Your task to perform on an android device: Search for the new Nike Air Max 270 on Nike.com Image 0: 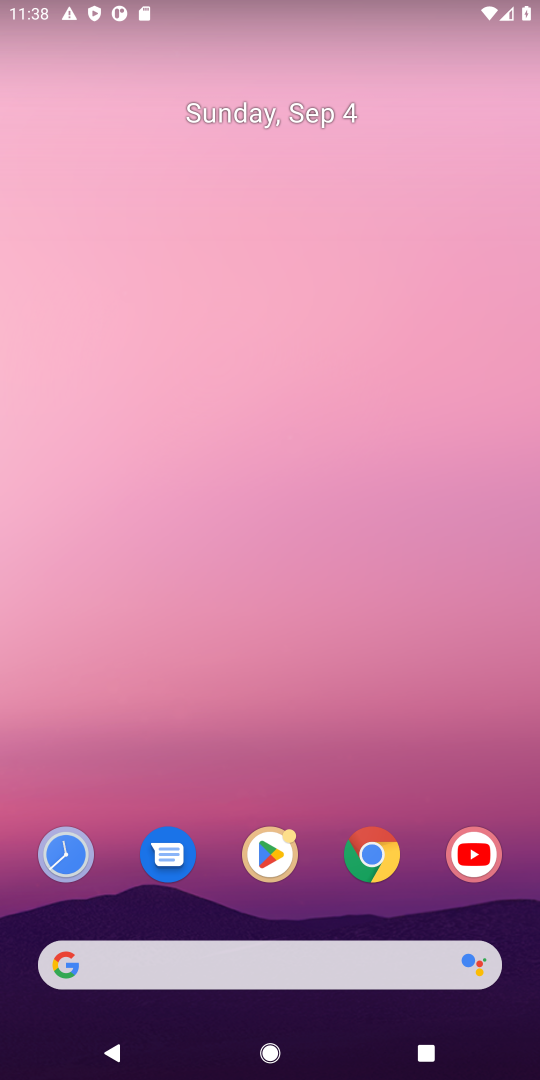
Step 0: press home button
Your task to perform on an android device: Search for the new Nike Air Max 270 on Nike.com Image 1: 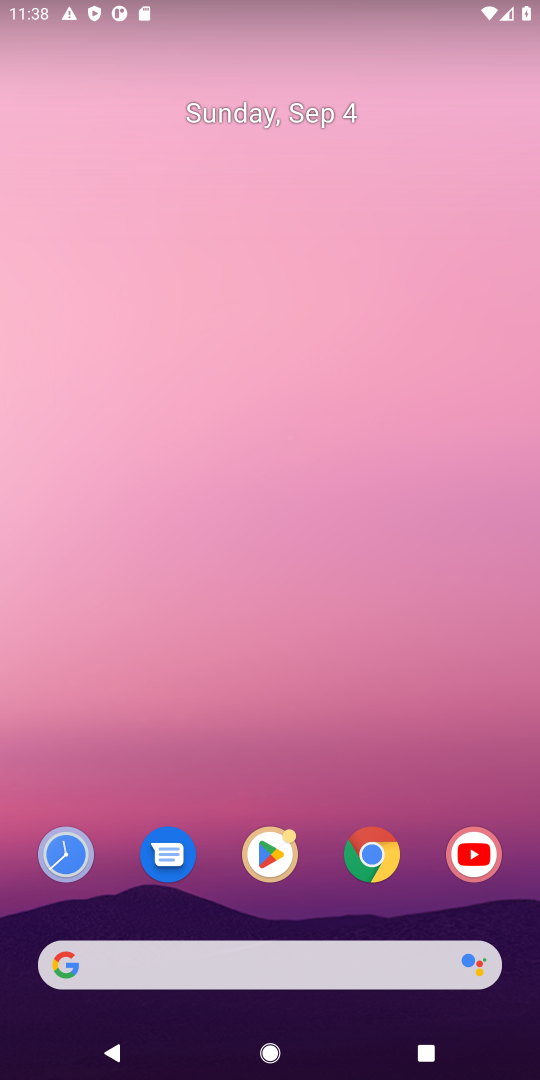
Step 1: click (402, 969)
Your task to perform on an android device: Search for the new Nike Air Max 270 on Nike.com Image 2: 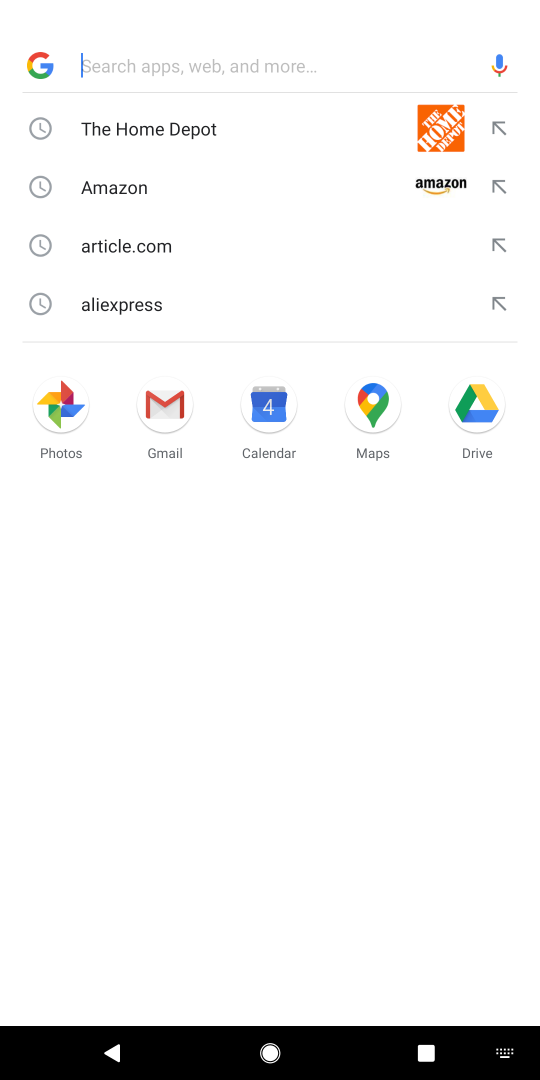
Step 2: press enter
Your task to perform on an android device: Search for the new Nike Air Max 270 on Nike.com Image 3: 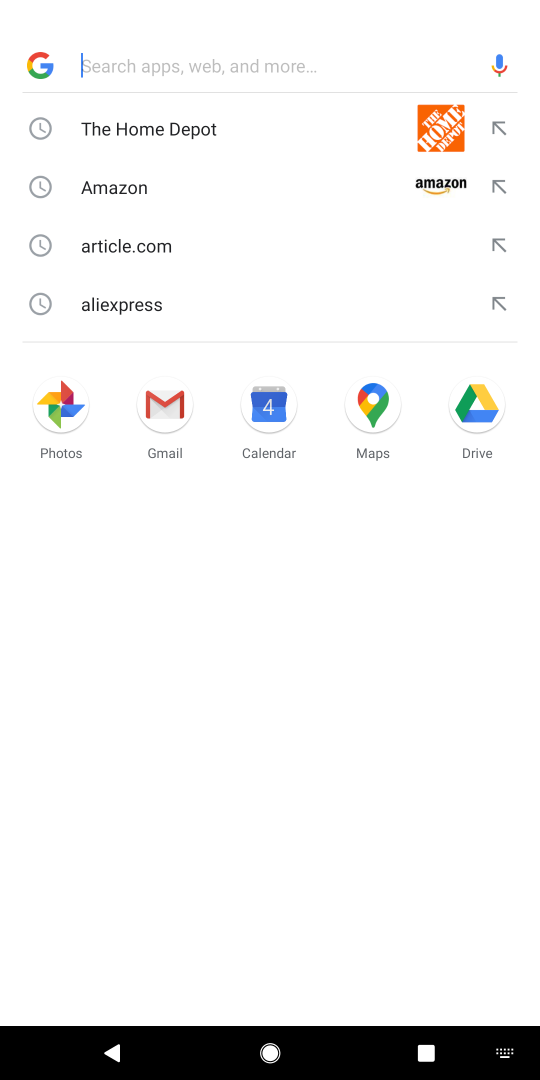
Step 3: type "nike.com"
Your task to perform on an android device: Search for the new Nike Air Max 270 on Nike.com Image 4: 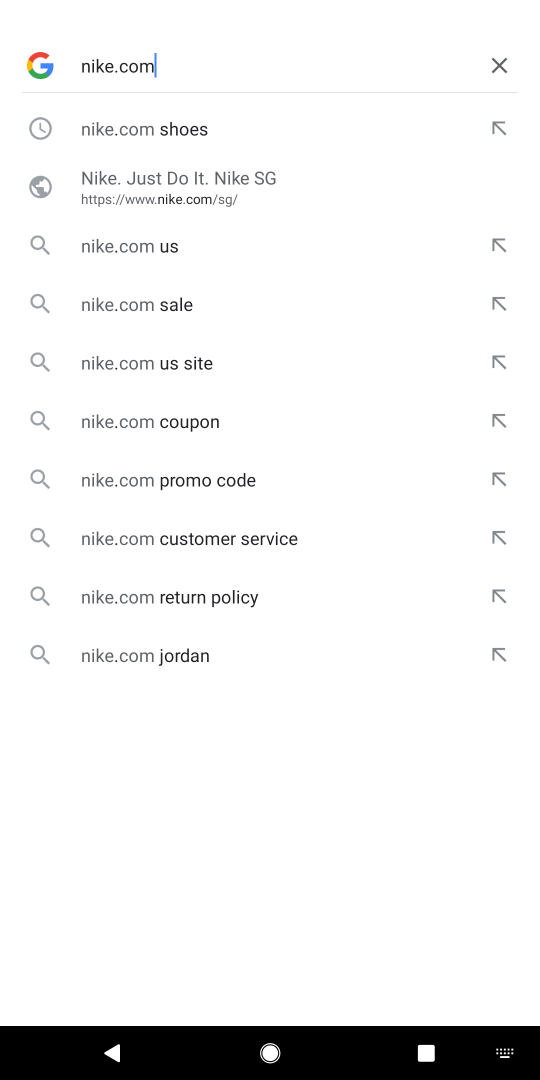
Step 4: click (174, 189)
Your task to perform on an android device: Search for the new Nike Air Max 270 on Nike.com Image 5: 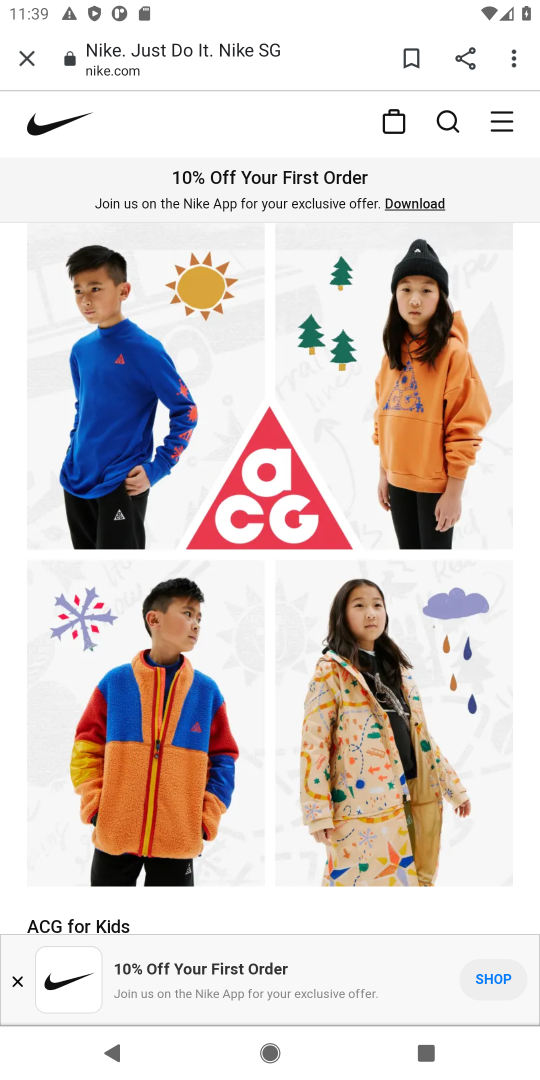
Step 5: click (440, 110)
Your task to perform on an android device: Search for the new Nike Air Max 270 on Nike.com Image 6: 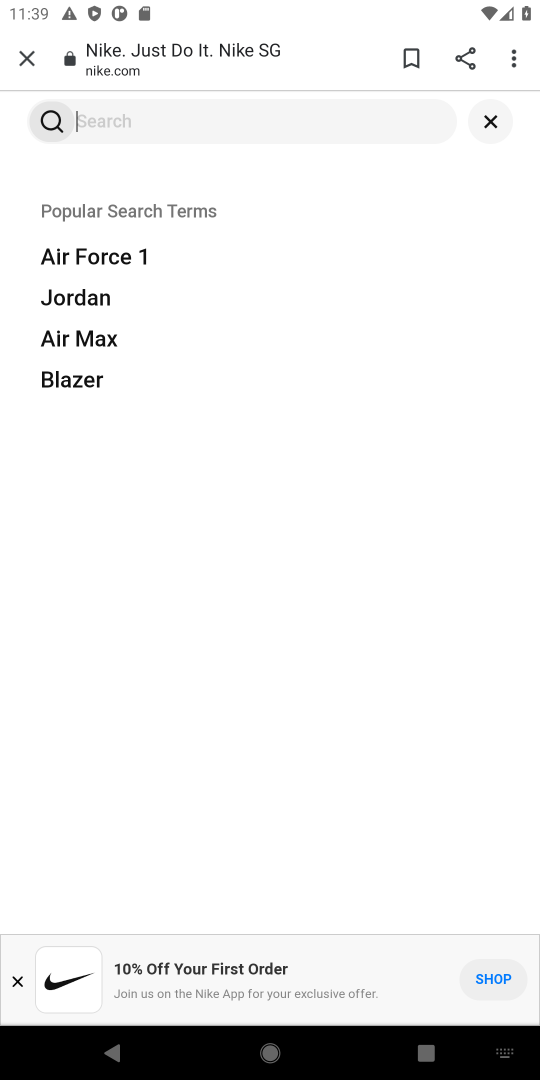
Step 6: press enter
Your task to perform on an android device: Search for the new Nike Air Max 270 on Nike.com Image 7: 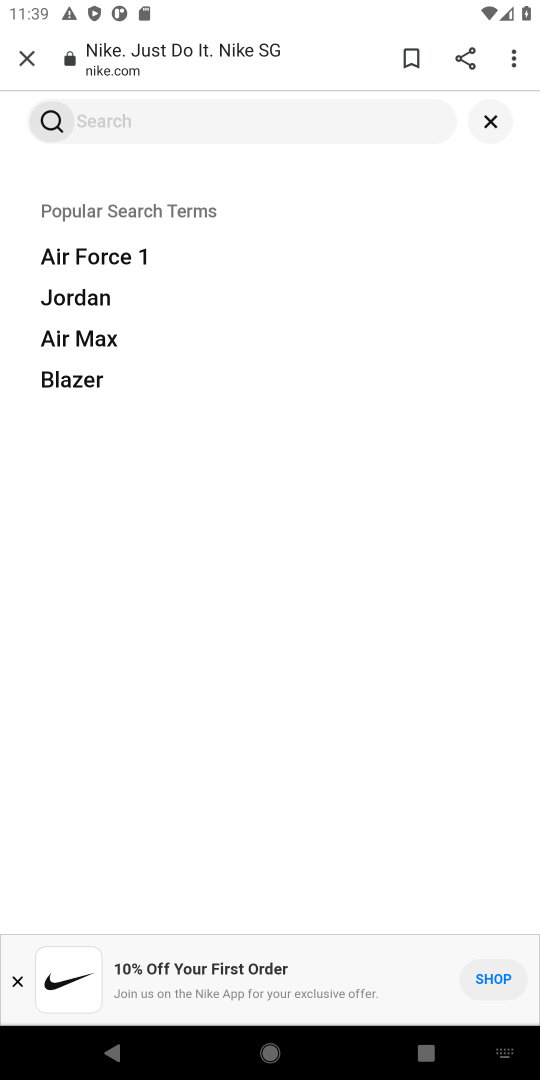
Step 7: type "new nike air max 270"
Your task to perform on an android device: Search for the new Nike Air Max 270 on Nike.com Image 8: 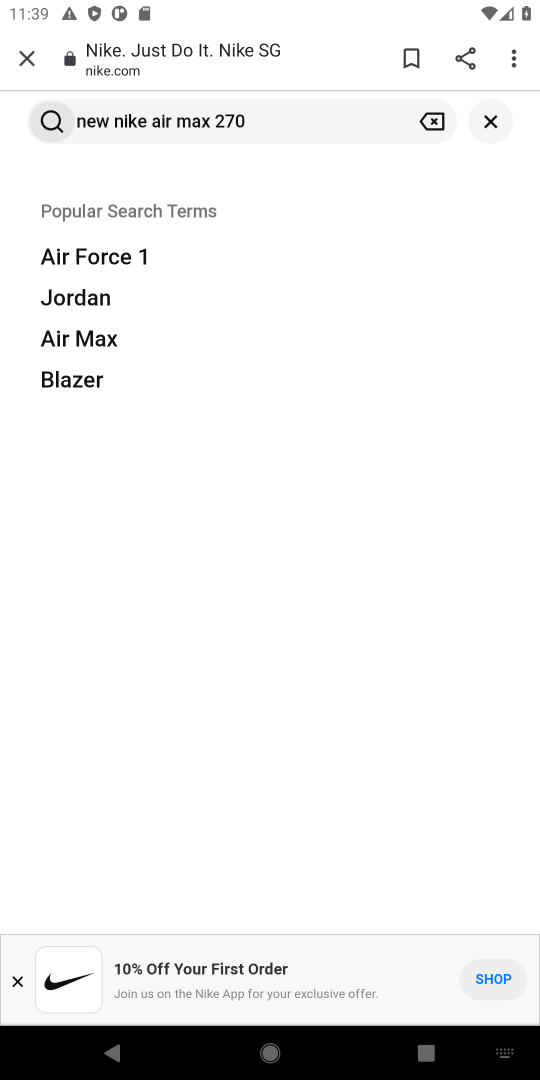
Step 8: click (49, 124)
Your task to perform on an android device: Search for the new Nike Air Max 270 on Nike.com Image 9: 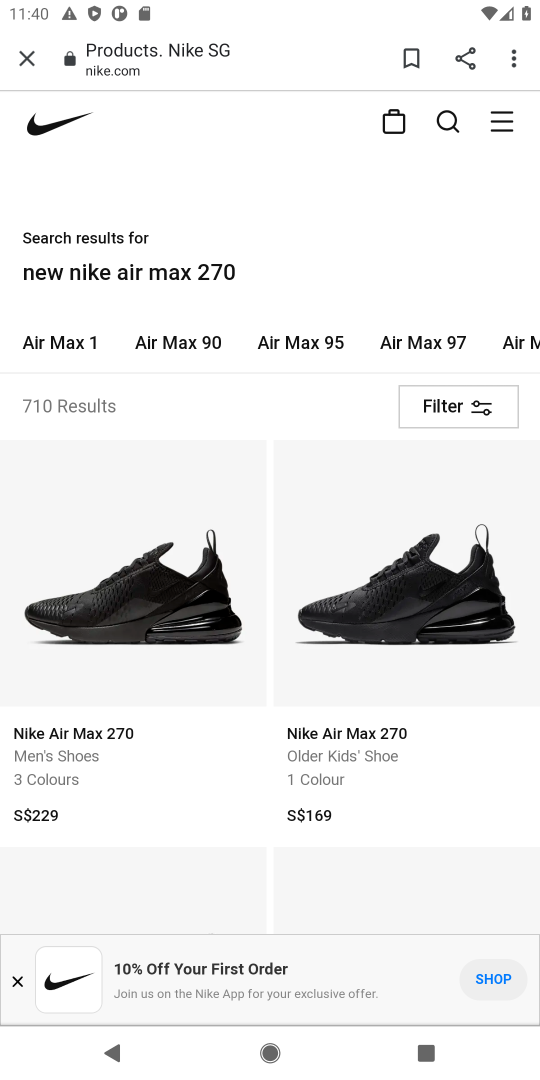
Step 9: task complete